Your task to perform on an android device: see tabs open on other devices in the chrome app Image 0: 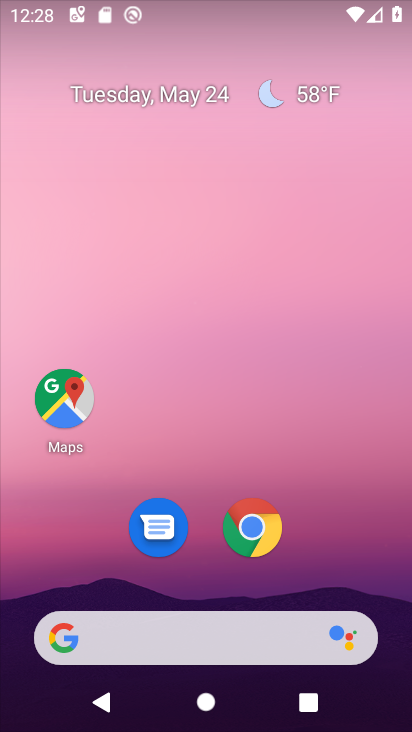
Step 0: click (269, 537)
Your task to perform on an android device: see tabs open on other devices in the chrome app Image 1: 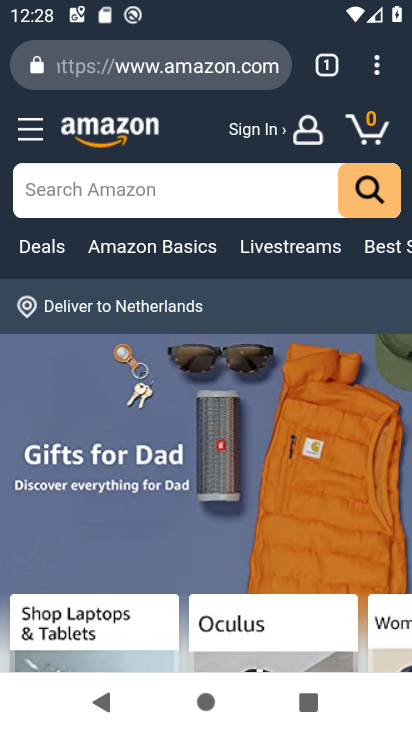
Step 1: click (381, 75)
Your task to perform on an android device: see tabs open on other devices in the chrome app Image 2: 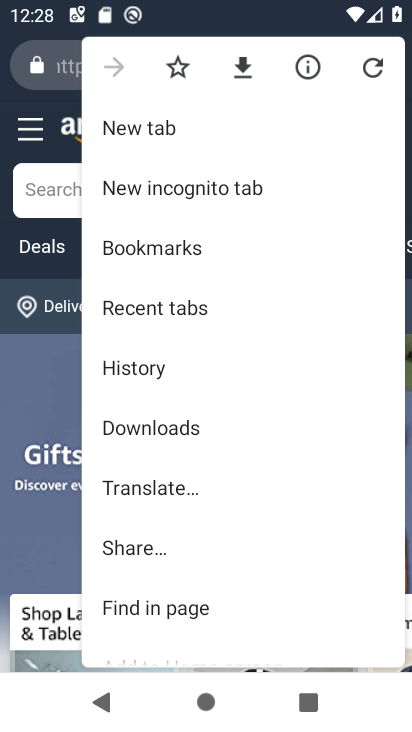
Step 2: click (206, 310)
Your task to perform on an android device: see tabs open on other devices in the chrome app Image 3: 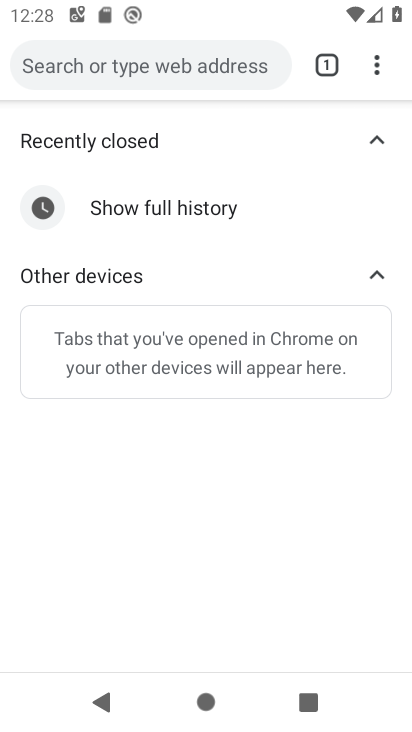
Step 3: task complete